Your task to perform on an android device: Go to Yahoo.com Image 0: 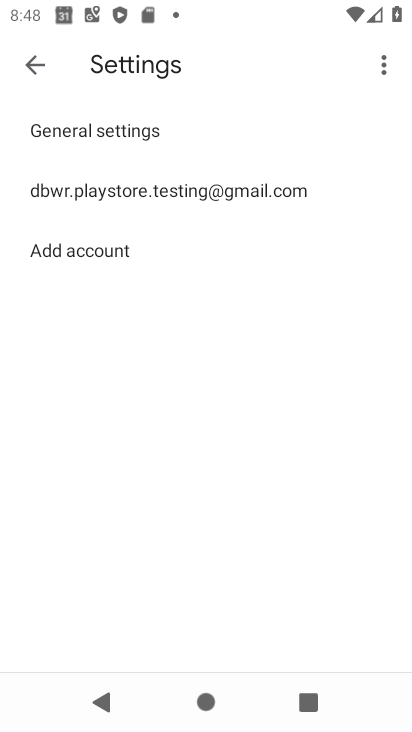
Step 0: press back button
Your task to perform on an android device: Go to Yahoo.com Image 1: 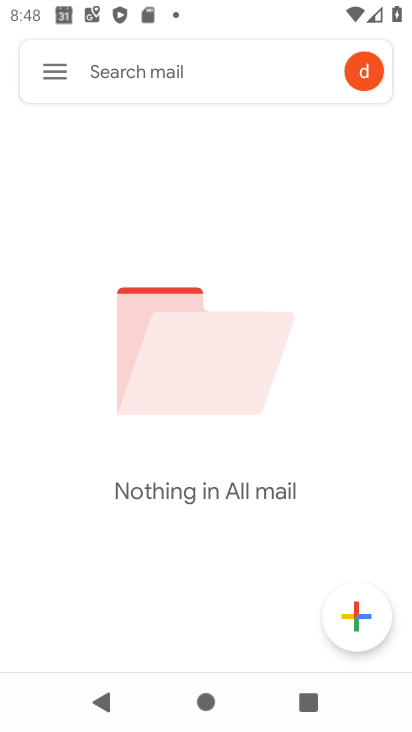
Step 1: press home button
Your task to perform on an android device: Go to Yahoo.com Image 2: 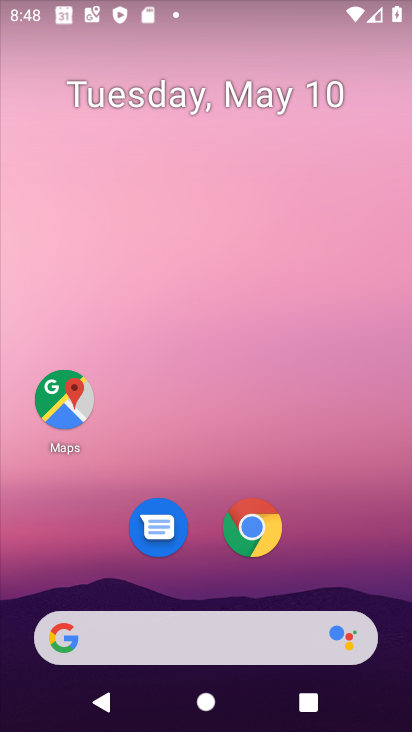
Step 2: click (245, 513)
Your task to perform on an android device: Go to Yahoo.com Image 3: 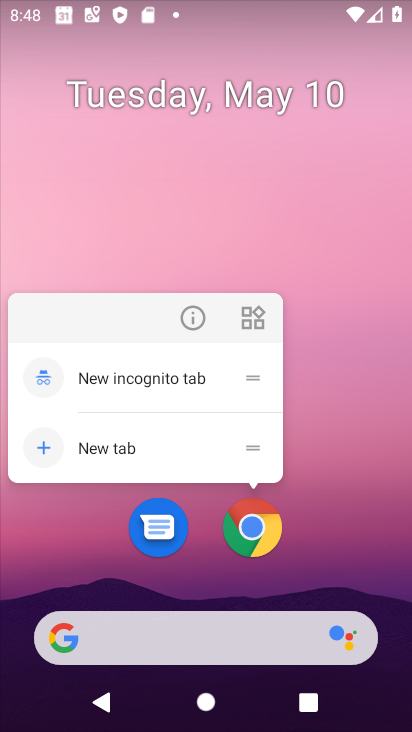
Step 3: click (250, 531)
Your task to perform on an android device: Go to Yahoo.com Image 4: 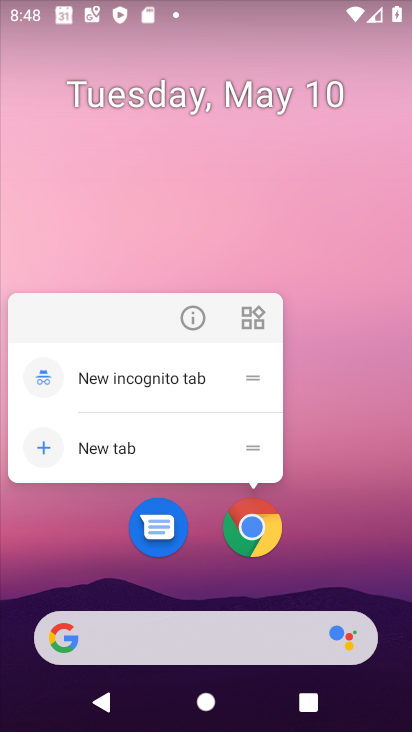
Step 4: click (256, 527)
Your task to perform on an android device: Go to Yahoo.com Image 5: 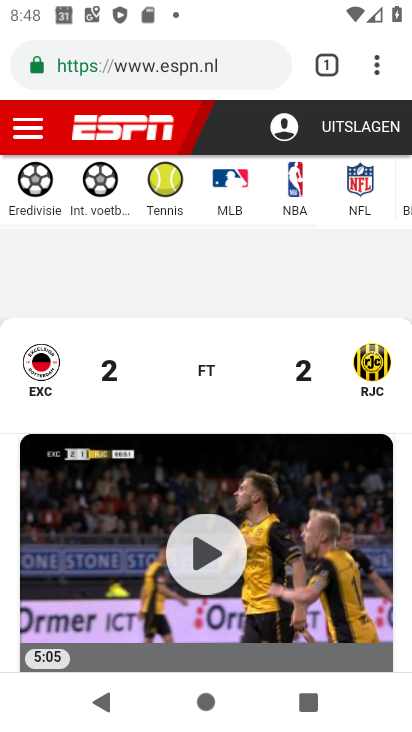
Step 5: drag from (381, 74) to (321, 117)
Your task to perform on an android device: Go to Yahoo.com Image 6: 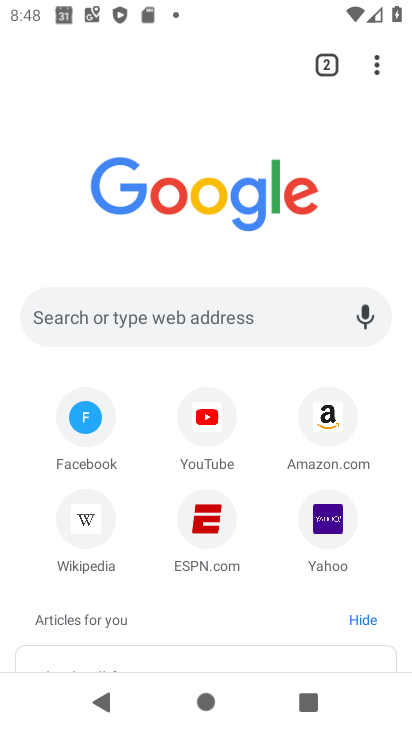
Step 6: click (312, 532)
Your task to perform on an android device: Go to Yahoo.com Image 7: 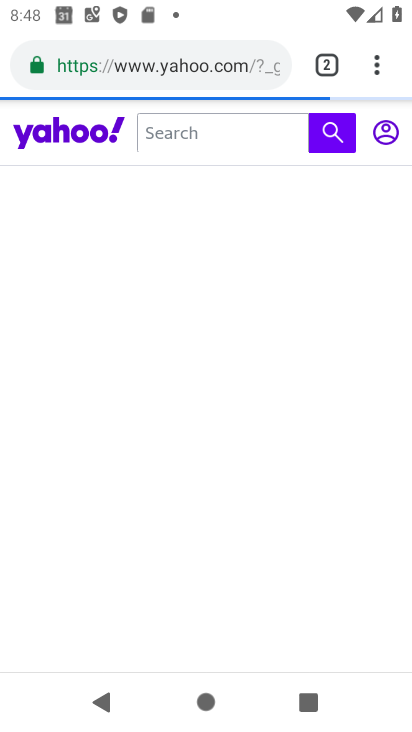
Step 7: task complete